Your task to perform on an android device: empty trash in google photos Image 0: 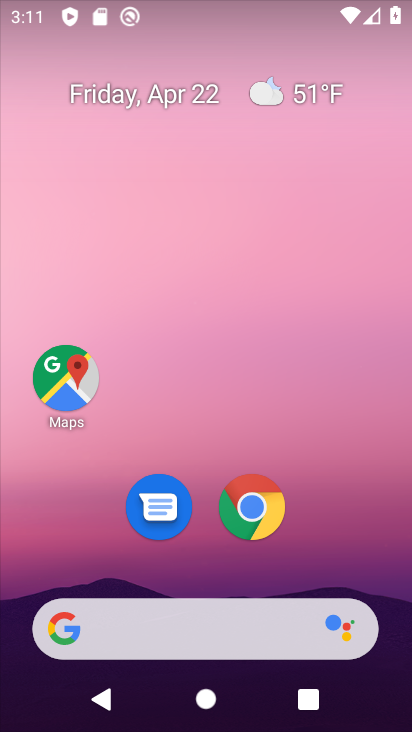
Step 0: drag from (170, 476) to (234, 152)
Your task to perform on an android device: empty trash in google photos Image 1: 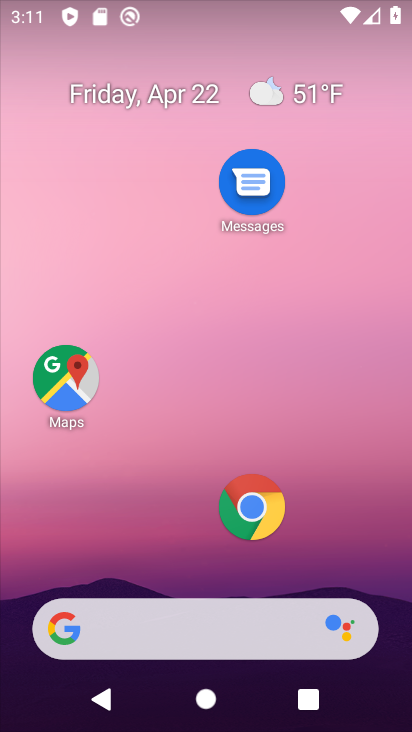
Step 1: drag from (180, 648) to (265, 149)
Your task to perform on an android device: empty trash in google photos Image 2: 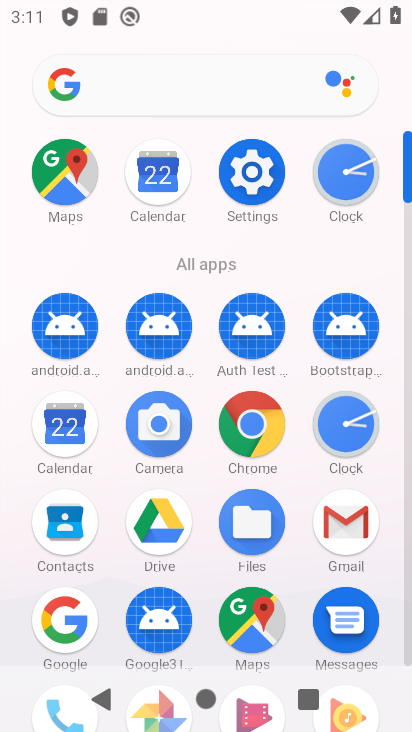
Step 2: drag from (113, 548) to (229, 184)
Your task to perform on an android device: empty trash in google photos Image 3: 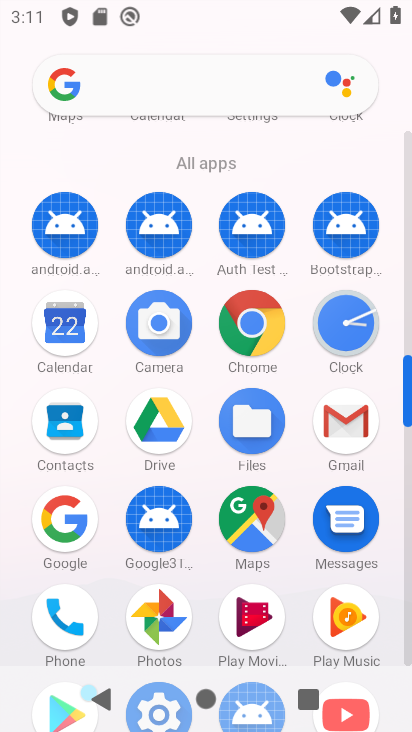
Step 3: click (168, 625)
Your task to perform on an android device: empty trash in google photos Image 4: 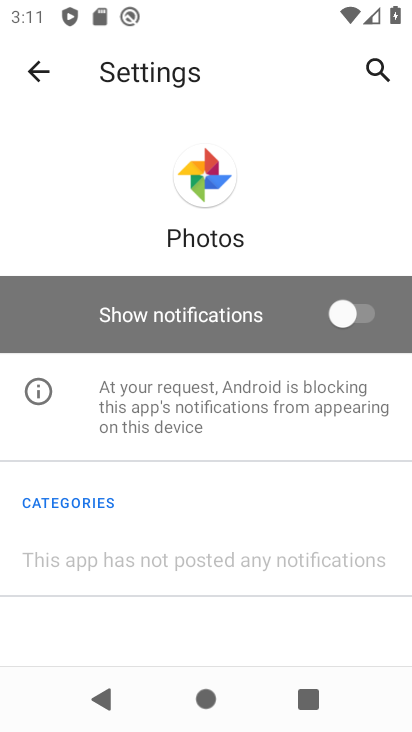
Step 4: click (39, 68)
Your task to perform on an android device: empty trash in google photos Image 5: 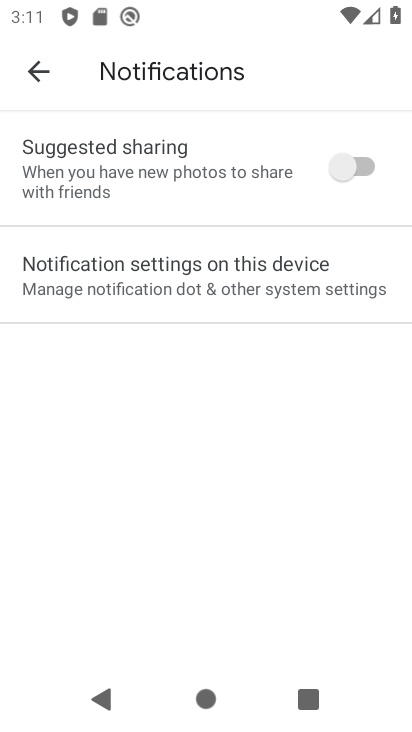
Step 5: click (38, 64)
Your task to perform on an android device: empty trash in google photos Image 6: 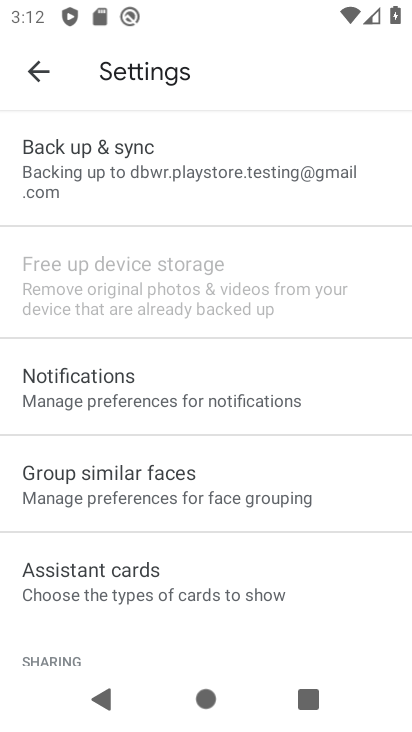
Step 6: click (32, 76)
Your task to perform on an android device: empty trash in google photos Image 7: 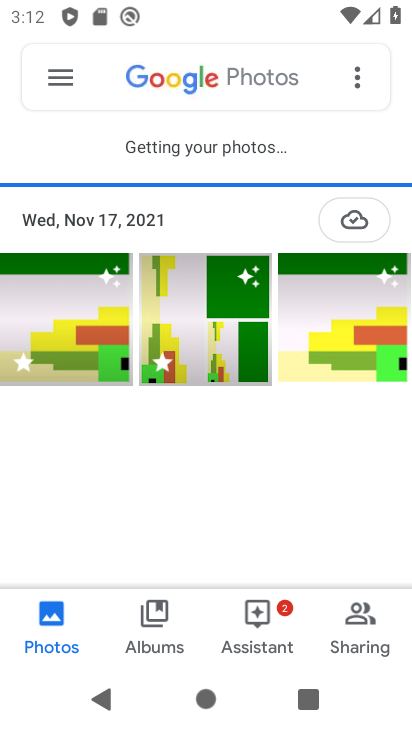
Step 7: click (57, 79)
Your task to perform on an android device: empty trash in google photos Image 8: 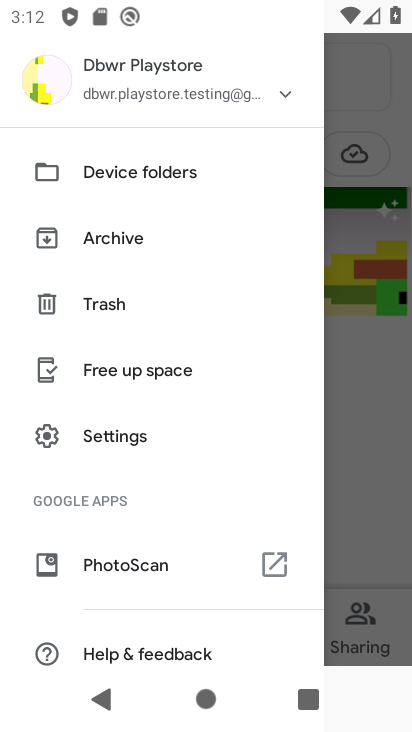
Step 8: click (114, 306)
Your task to perform on an android device: empty trash in google photos Image 9: 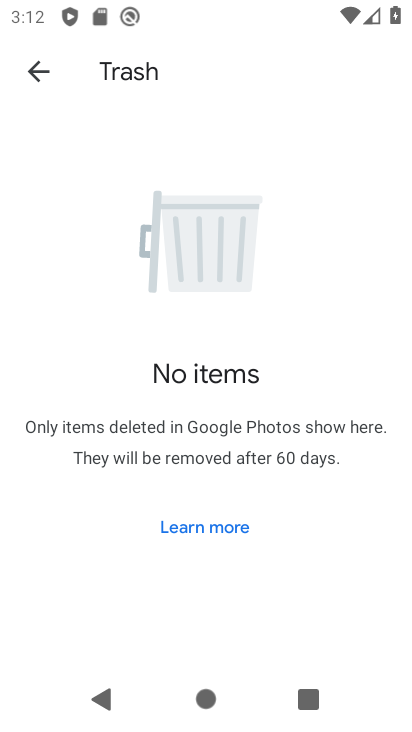
Step 9: task complete